Your task to perform on an android device: delete the emails in spam in the gmail app Image 0: 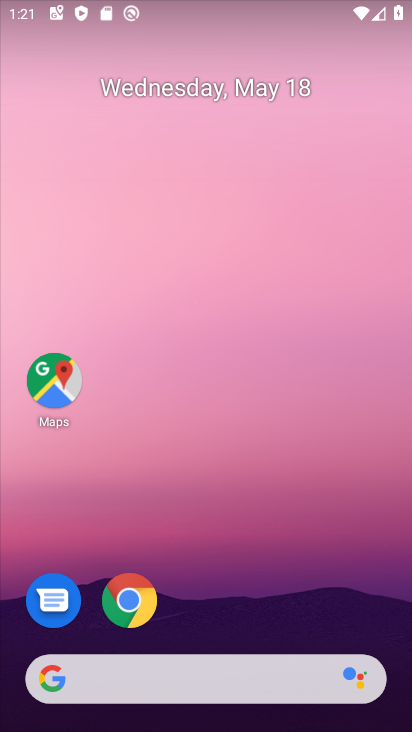
Step 0: drag from (225, 585) to (150, 100)
Your task to perform on an android device: delete the emails in spam in the gmail app Image 1: 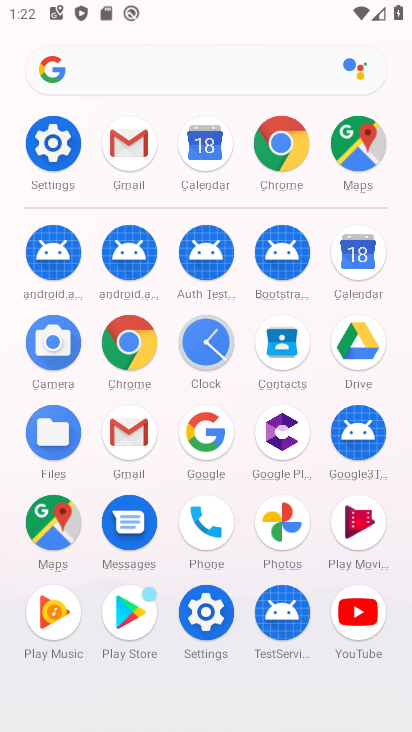
Step 1: click (124, 143)
Your task to perform on an android device: delete the emails in spam in the gmail app Image 2: 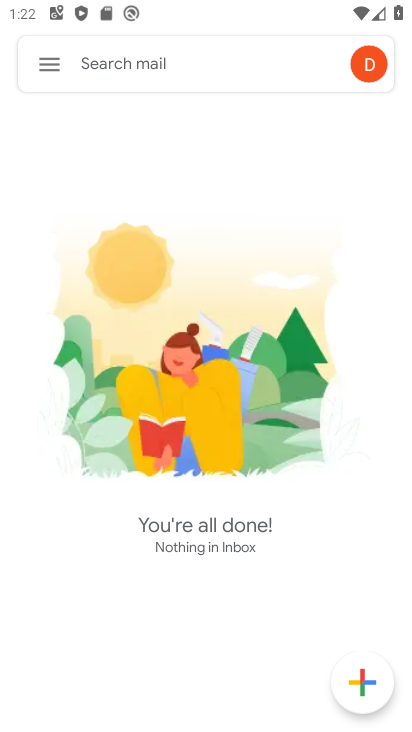
Step 2: click (55, 64)
Your task to perform on an android device: delete the emails in spam in the gmail app Image 3: 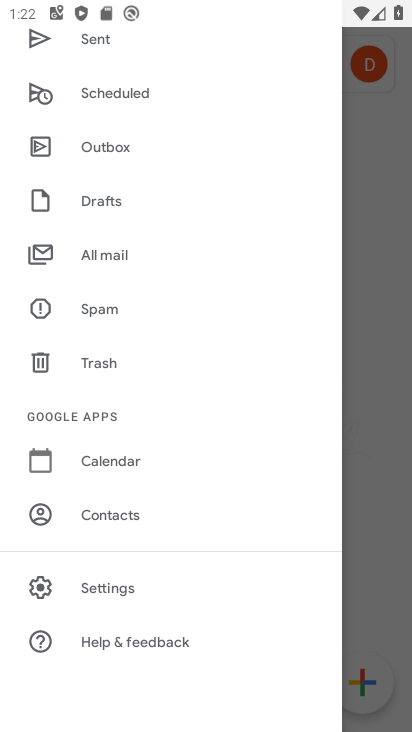
Step 3: click (124, 302)
Your task to perform on an android device: delete the emails in spam in the gmail app Image 4: 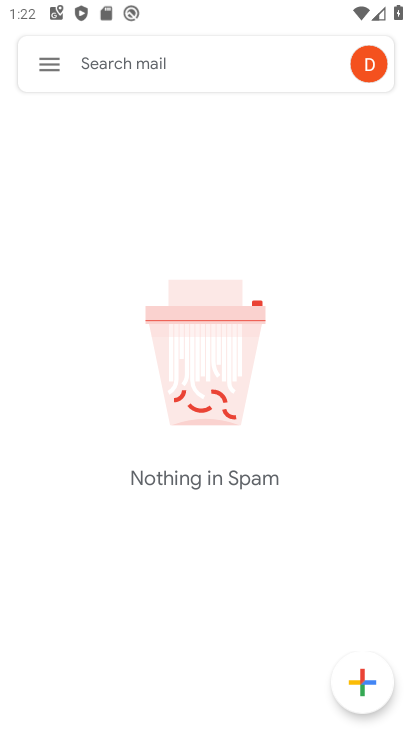
Step 4: task complete